Your task to perform on an android device: Open accessibility settings Image 0: 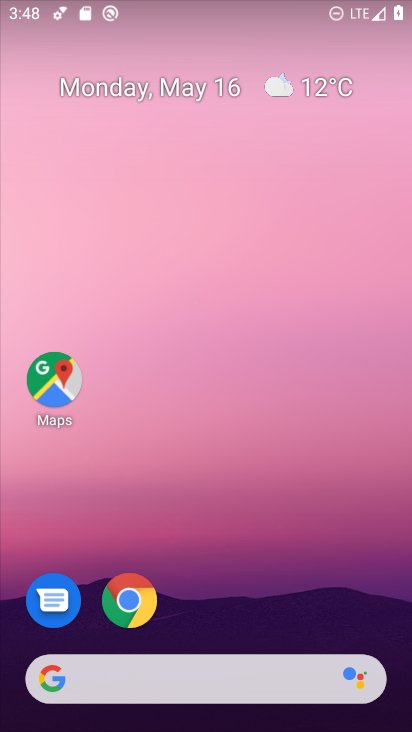
Step 0: drag from (314, 460) to (404, 69)
Your task to perform on an android device: Open accessibility settings Image 1: 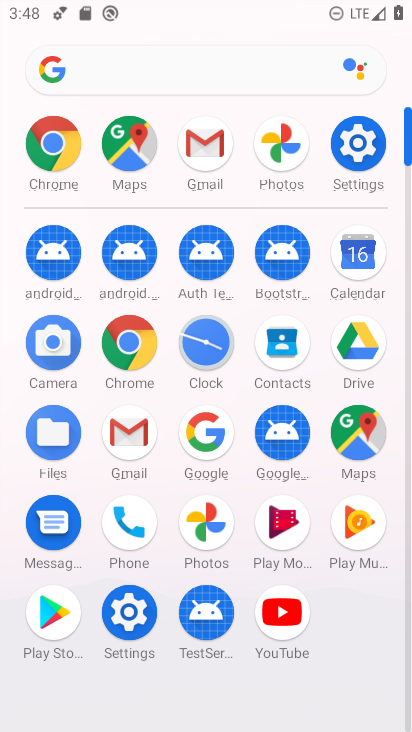
Step 1: click (370, 145)
Your task to perform on an android device: Open accessibility settings Image 2: 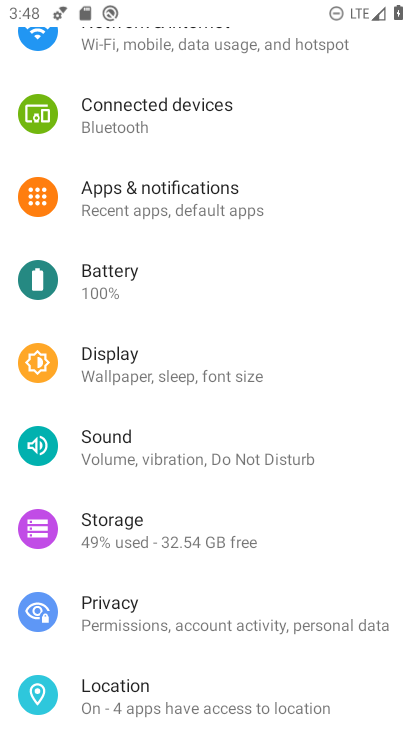
Step 2: drag from (212, 590) to (301, 87)
Your task to perform on an android device: Open accessibility settings Image 3: 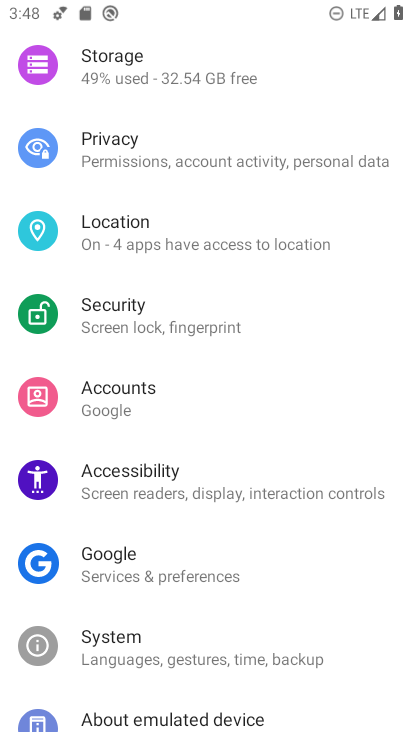
Step 3: click (181, 474)
Your task to perform on an android device: Open accessibility settings Image 4: 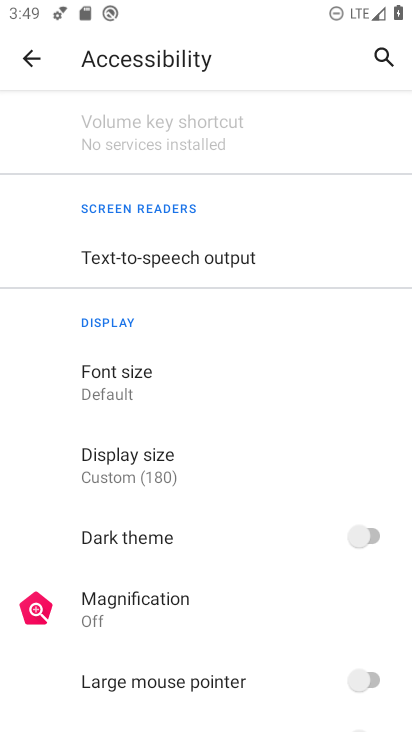
Step 4: task complete